Your task to perform on an android device: Go to network settings Image 0: 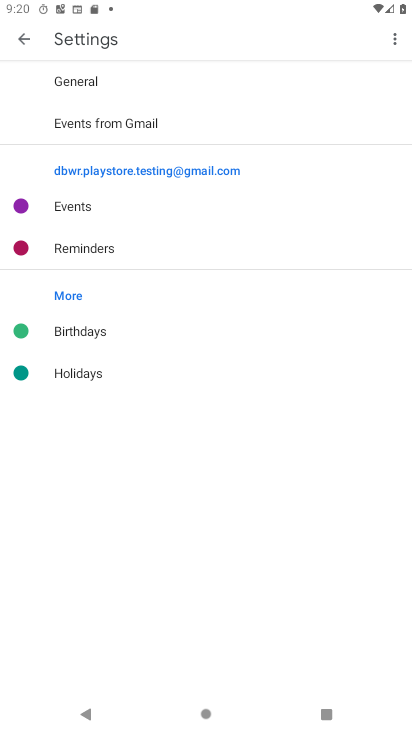
Step 0: press home button
Your task to perform on an android device: Go to network settings Image 1: 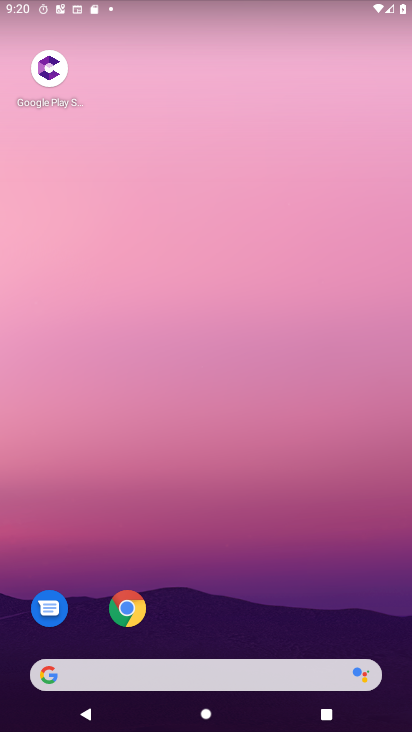
Step 1: drag from (227, 720) to (251, 150)
Your task to perform on an android device: Go to network settings Image 2: 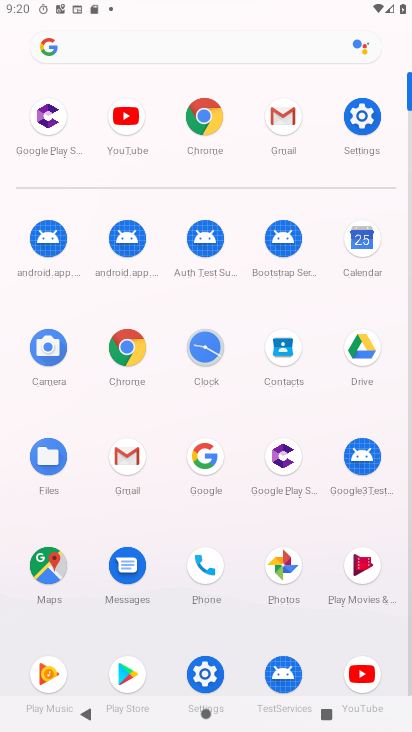
Step 2: click (373, 117)
Your task to perform on an android device: Go to network settings Image 3: 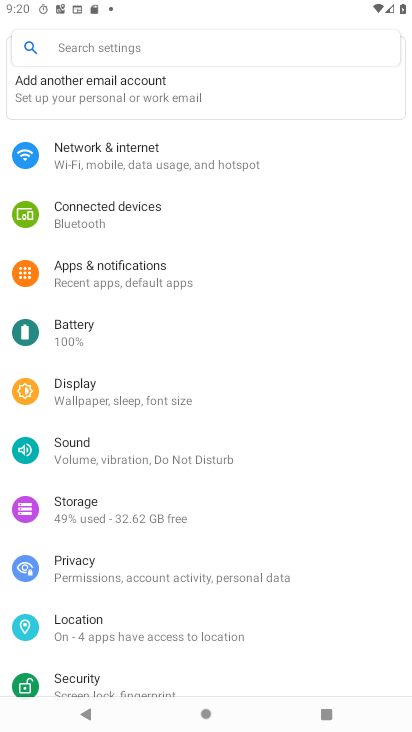
Step 3: click (127, 157)
Your task to perform on an android device: Go to network settings Image 4: 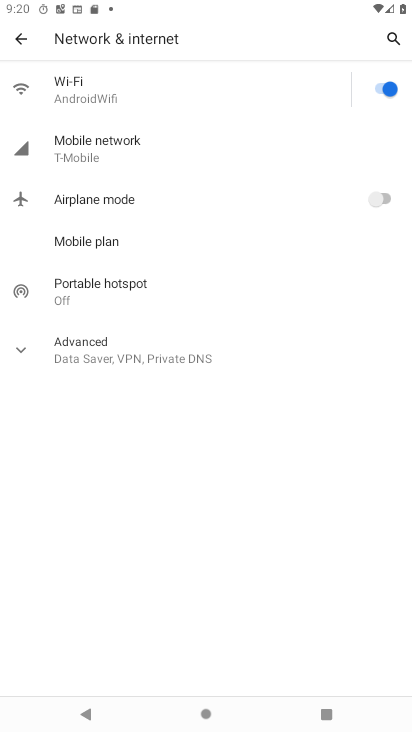
Step 4: click (106, 145)
Your task to perform on an android device: Go to network settings Image 5: 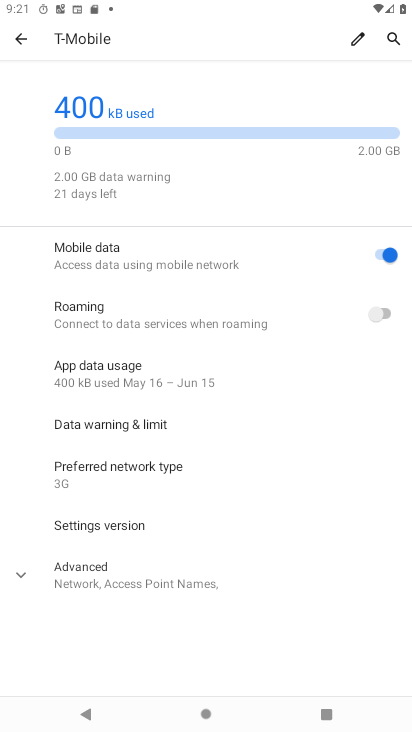
Step 5: task complete